Your task to perform on an android device: Show me productivity apps on the Play Store Image 0: 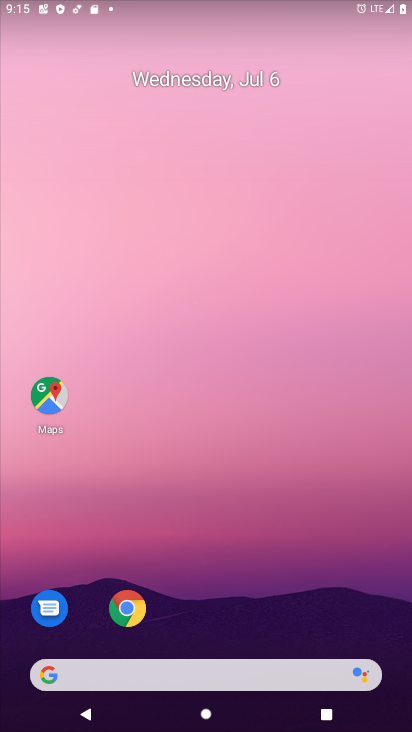
Step 0: drag from (399, 629) to (235, 18)
Your task to perform on an android device: Show me productivity apps on the Play Store Image 1: 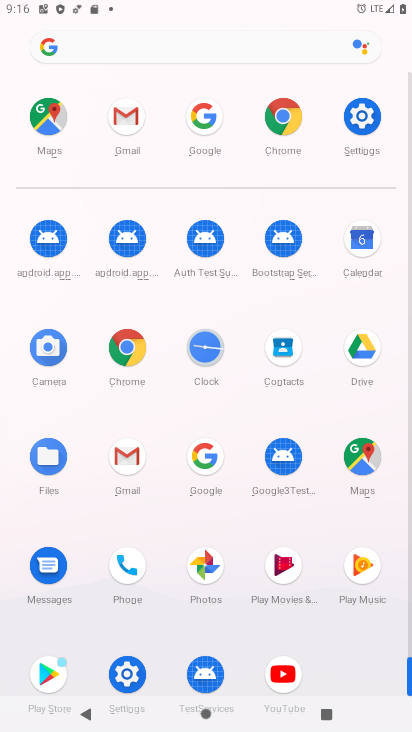
Step 1: click (44, 675)
Your task to perform on an android device: Show me productivity apps on the Play Store Image 2: 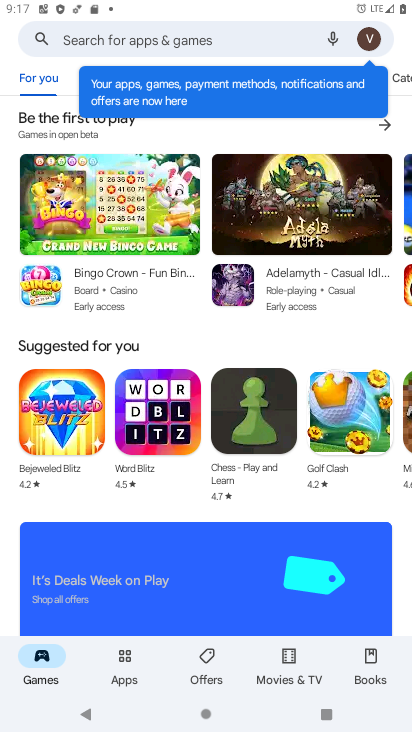
Step 2: click (128, 664)
Your task to perform on an android device: Show me productivity apps on the Play Store Image 3: 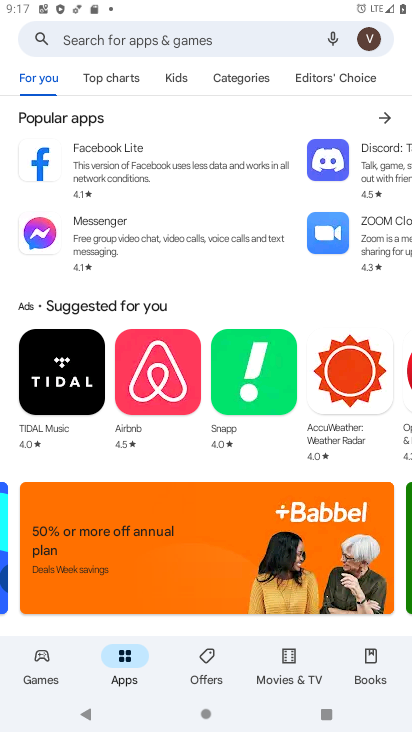
Step 3: task complete